Your task to perform on an android device: check out phone information Image 0: 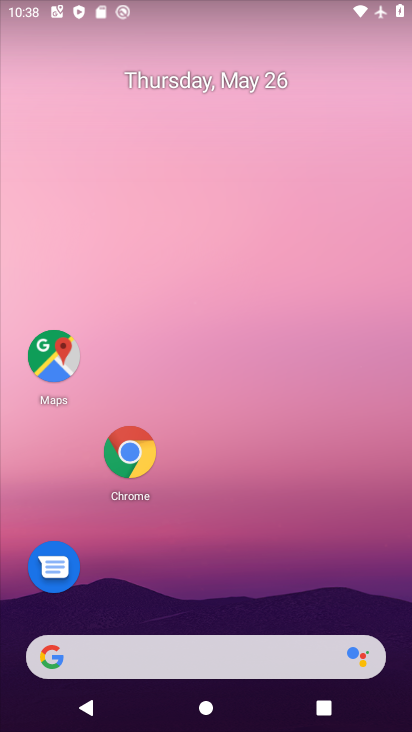
Step 0: press home button
Your task to perform on an android device: check out phone information Image 1: 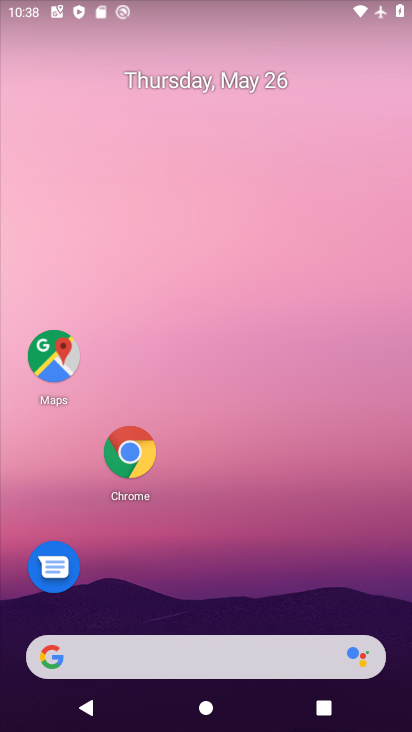
Step 1: drag from (122, 627) to (338, 62)
Your task to perform on an android device: check out phone information Image 2: 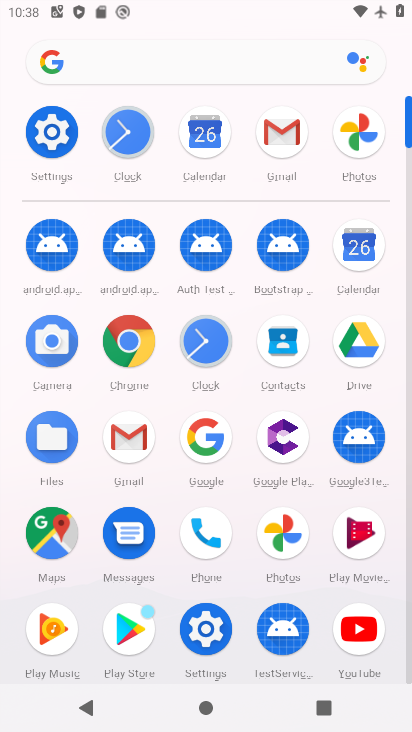
Step 2: click (48, 134)
Your task to perform on an android device: check out phone information Image 3: 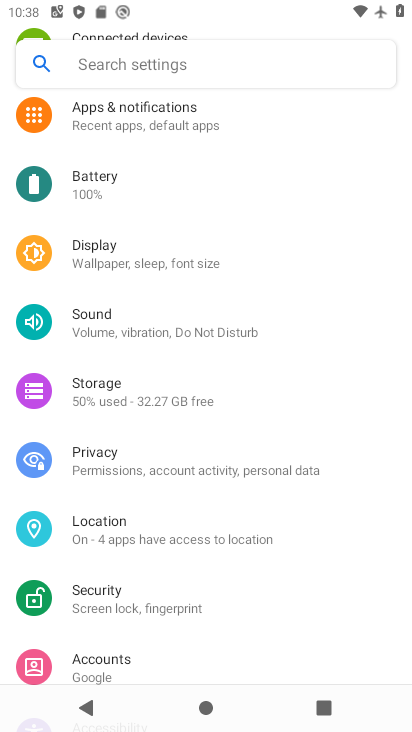
Step 3: drag from (190, 644) to (383, 70)
Your task to perform on an android device: check out phone information Image 4: 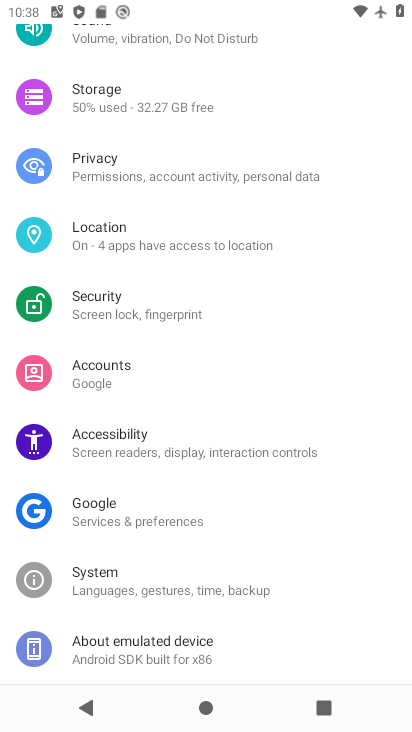
Step 4: click (155, 645)
Your task to perform on an android device: check out phone information Image 5: 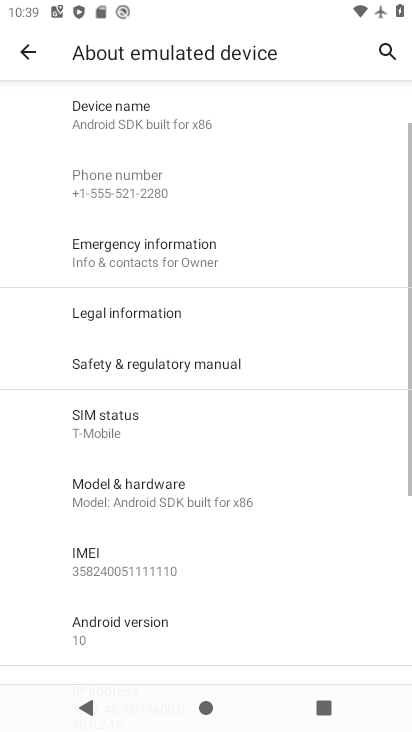
Step 5: task complete